Your task to perform on an android device: Go to wifi settings Image 0: 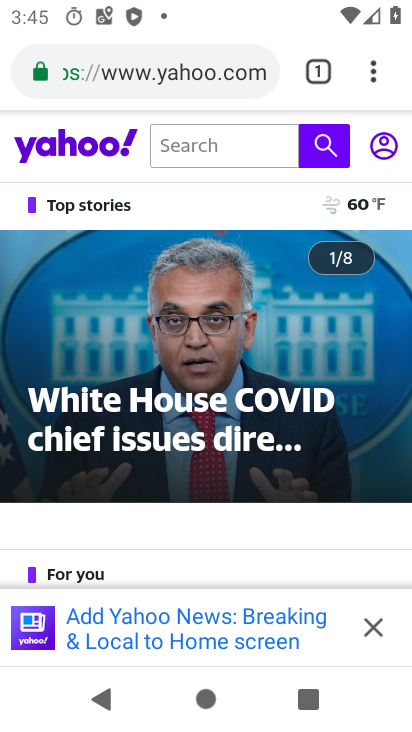
Step 0: press home button
Your task to perform on an android device: Go to wifi settings Image 1: 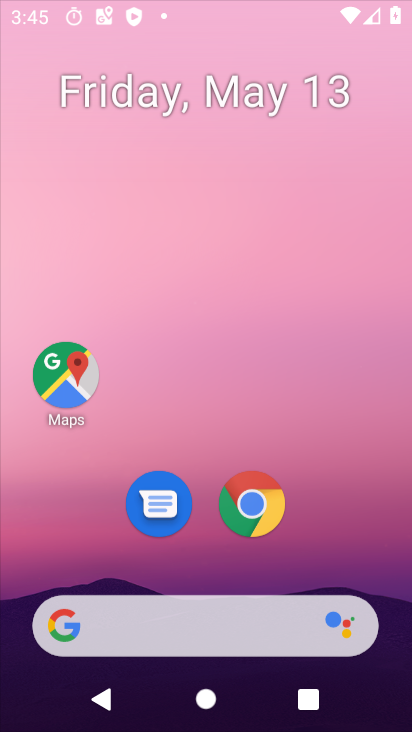
Step 1: click (398, 354)
Your task to perform on an android device: Go to wifi settings Image 2: 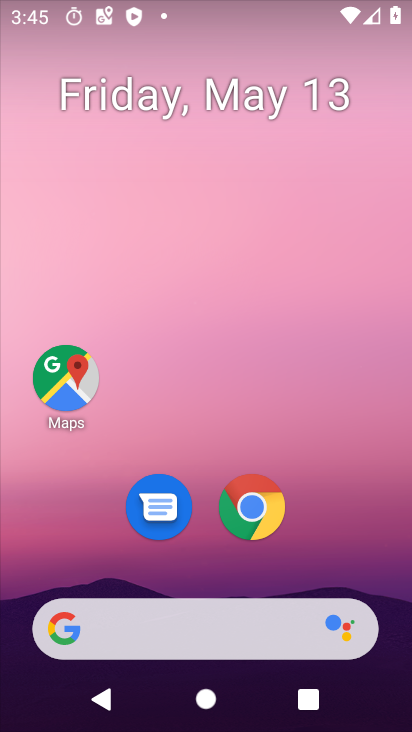
Step 2: drag from (258, 553) to (227, 110)
Your task to perform on an android device: Go to wifi settings Image 3: 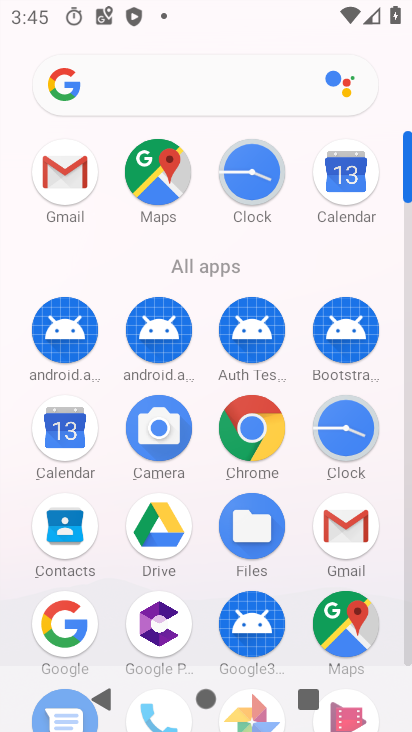
Step 3: drag from (219, 527) to (230, 239)
Your task to perform on an android device: Go to wifi settings Image 4: 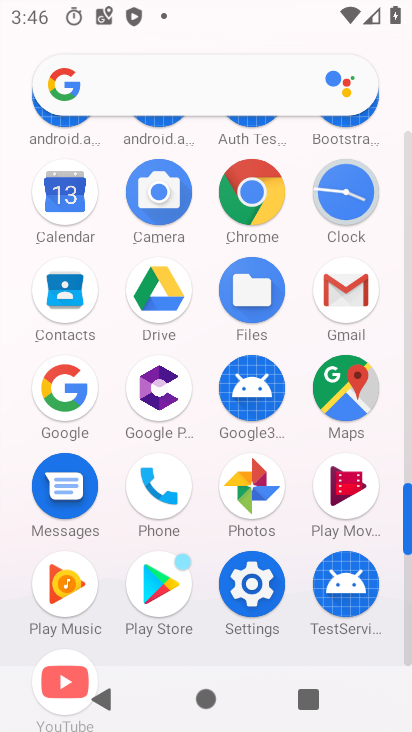
Step 4: click (262, 574)
Your task to perform on an android device: Go to wifi settings Image 5: 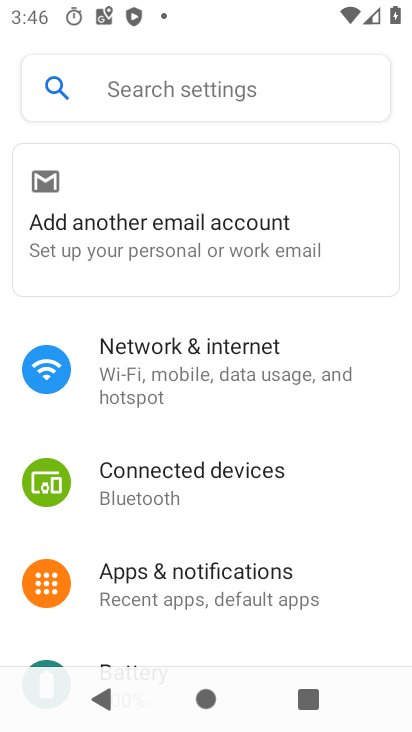
Step 5: click (237, 352)
Your task to perform on an android device: Go to wifi settings Image 6: 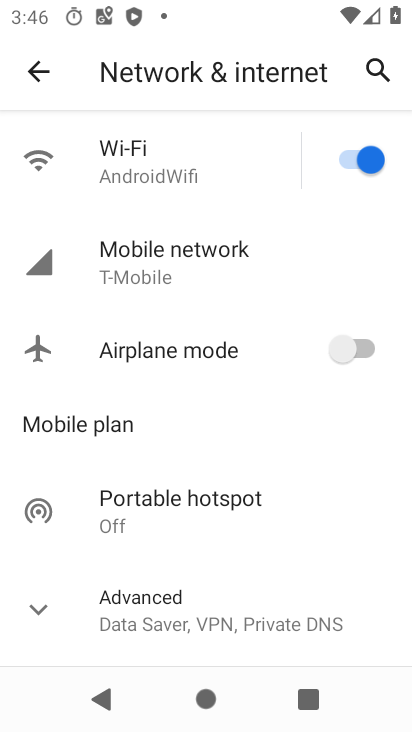
Step 6: click (210, 169)
Your task to perform on an android device: Go to wifi settings Image 7: 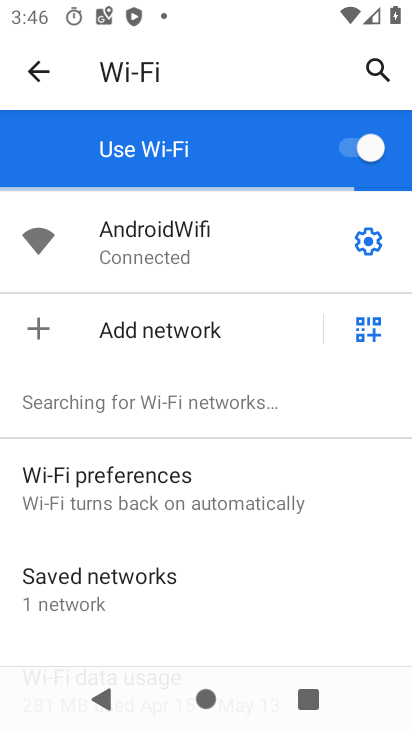
Step 7: click (374, 240)
Your task to perform on an android device: Go to wifi settings Image 8: 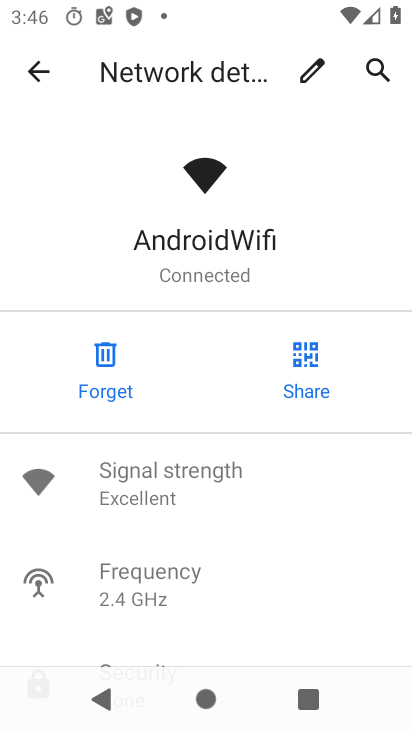
Step 8: task complete